Your task to perform on an android device: change the clock style Image 0: 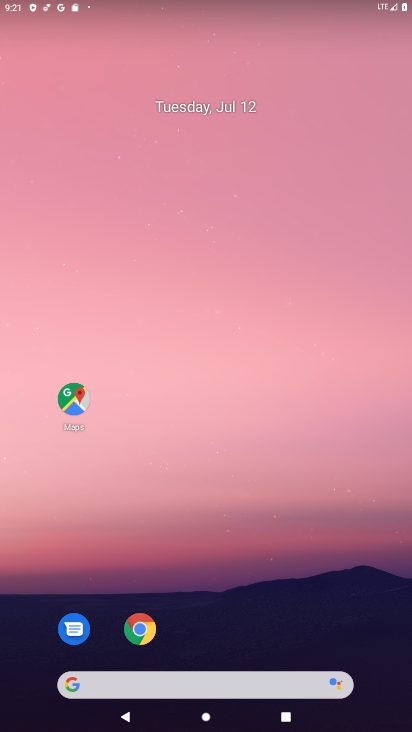
Step 0: drag from (301, 630) to (238, 149)
Your task to perform on an android device: change the clock style Image 1: 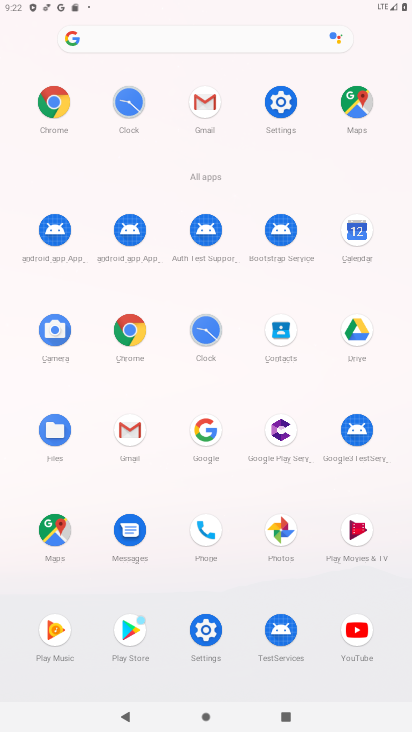
Step 1: click (127, 98)
Your task to perform on an android device: change the clock style Image 2: 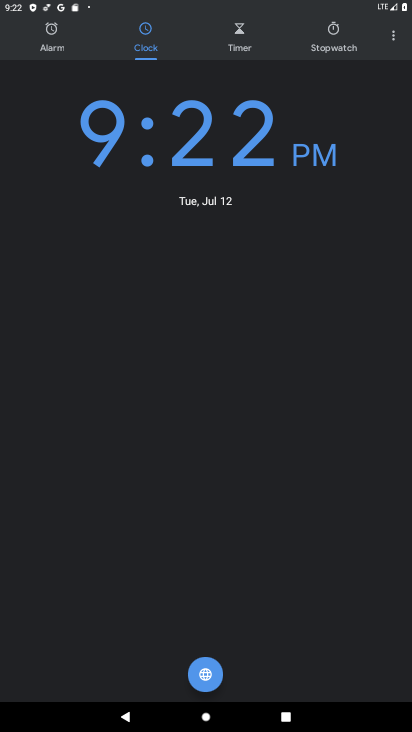
Step 2: click (391, 38)
Your task to perform on an android device: change the clock style Image 3: 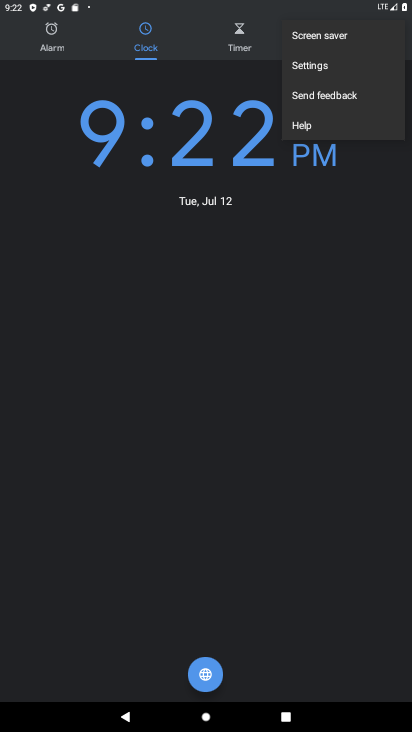
Step 3: click (346, 69)
Your task to perform on an android device: change the clock style Image 4: 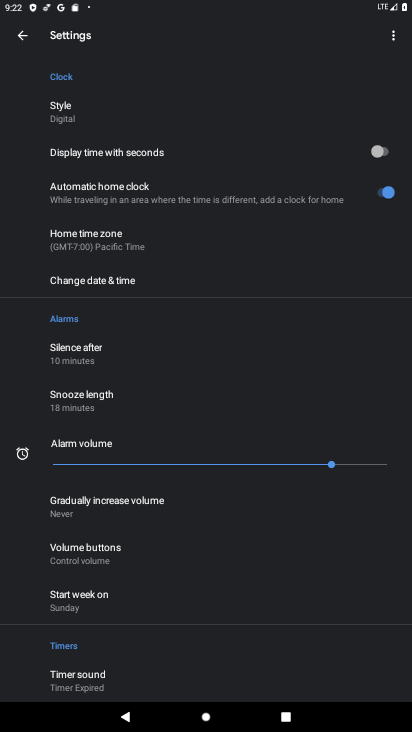
Step 4: click (76, 108)
Your task to perform on an android device: change the clock style Image 5: 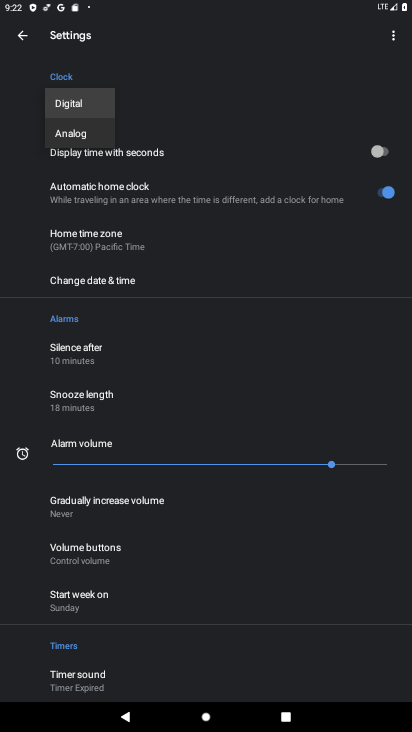
Step 5: click (91, 134)
Your task to perform on an android device: change the clock style Image 6: 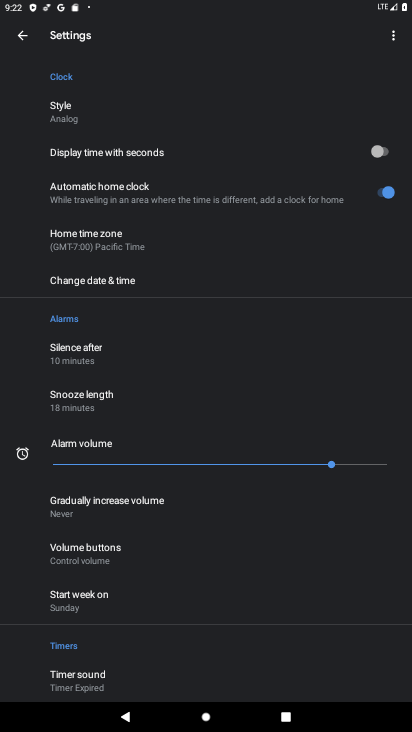
Step 6: task complete